Your task to perform on an android device: change the clock style Image 0: 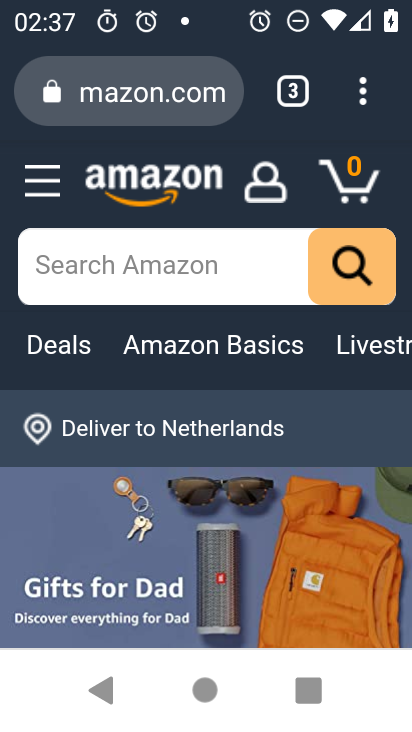
Step 0: press home button
Your task to perform on an android device: change the clock style Image 1: 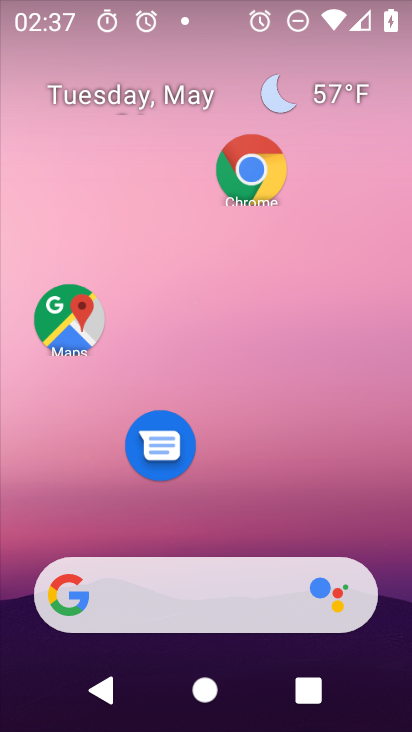
Step 1: drag from (237, 721) to (218, 142)
Your task to perform on an android device: change the clock style Image 2: 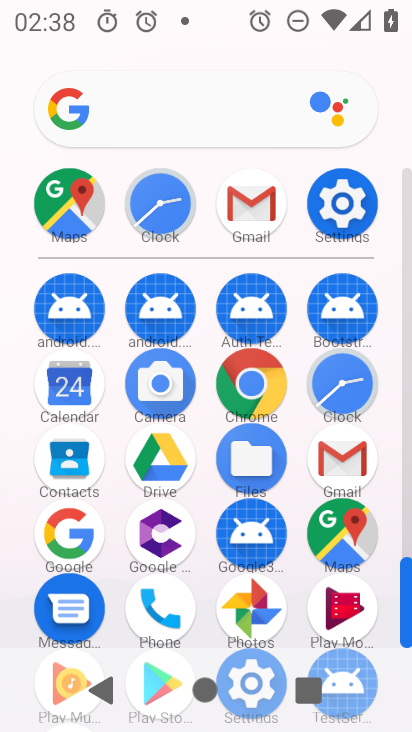
Step 2: click (347, 376)
Your task to perform on an android device: change the clock style Image 3: 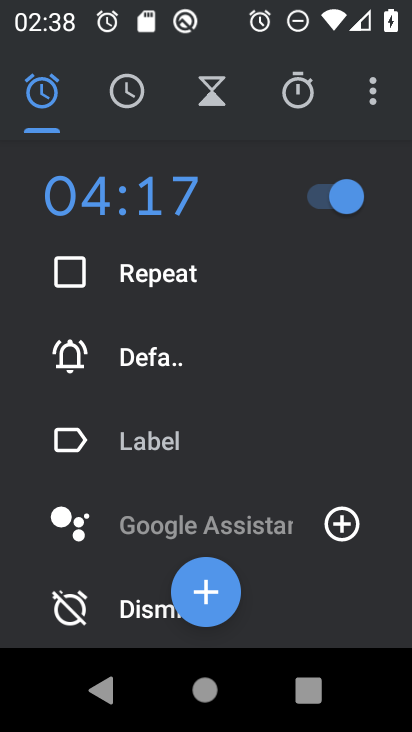
Step 3: click (377, 103)
Your task to perform on an android device: change the clock style Image 4: 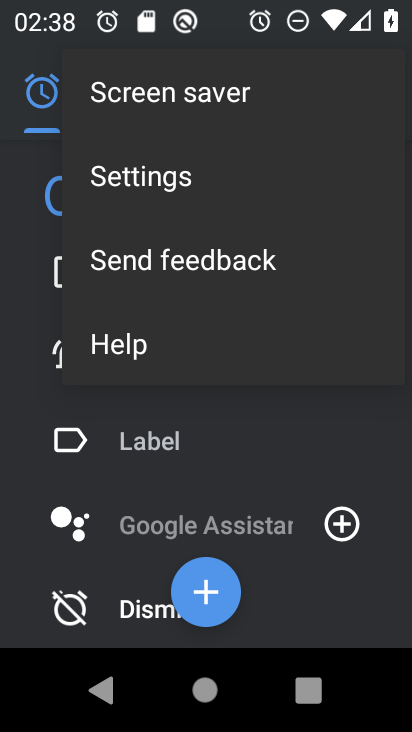
Step 4: click (140, 185)
Your task to perform on an android device: change the clock style Image 5: 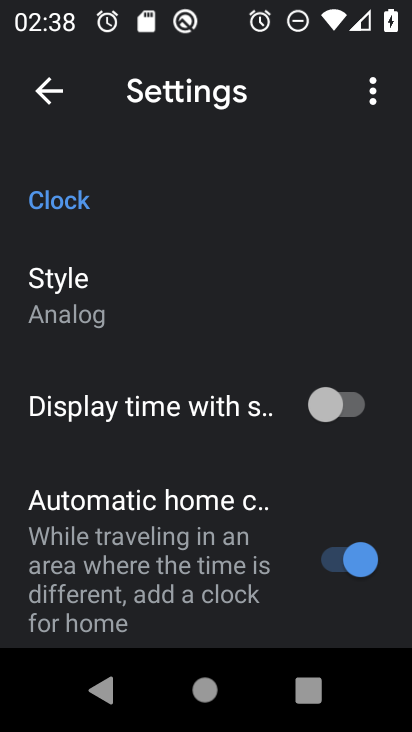
Step 5: click (82, 295)
Your task to perform on an android device: change the clock style Image 6: 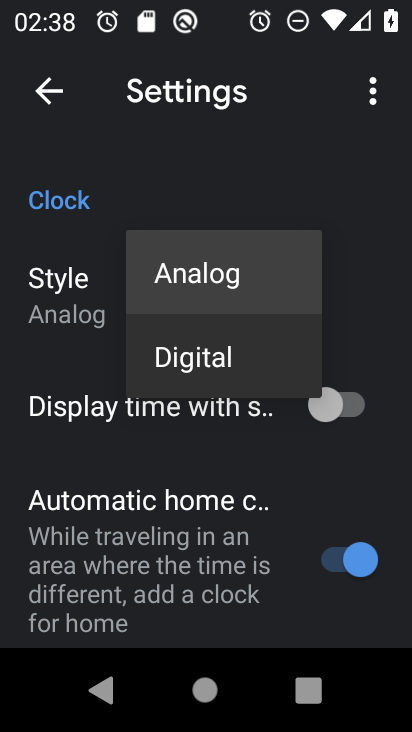
Step 6: click (213, 362)
Your task to perform on an android device: change the clock style Image 7: 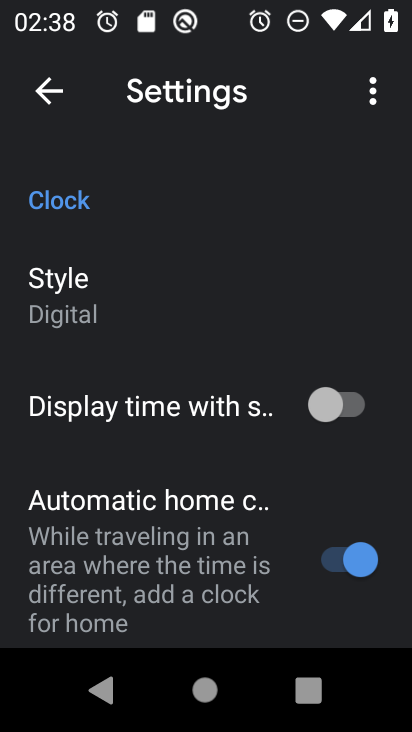
Step 7: task complete